Your task to perform on an android device: turn on bluetooth scan Image 0: 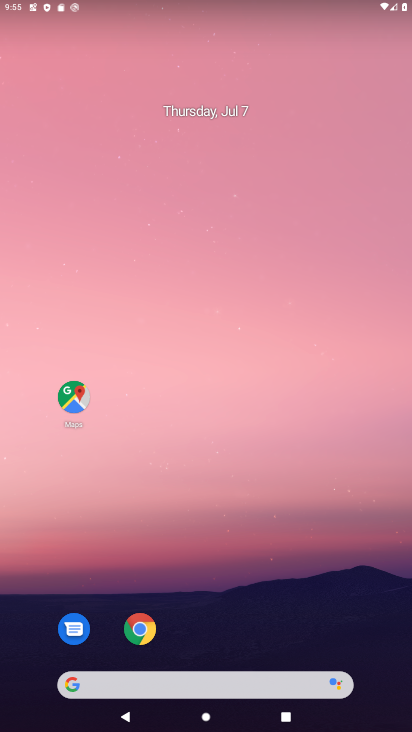
Step 0: drag from (208, 664) to (187, 94)
Your task to perform on an android device: turn on bluetooth scan Image 1: 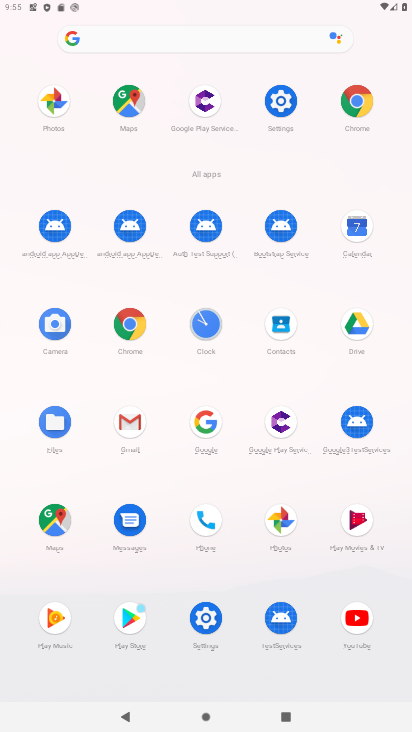
Step 1: click (276, 110)
Your task to perform on an android device: turn on bluetooth scan Image 2: 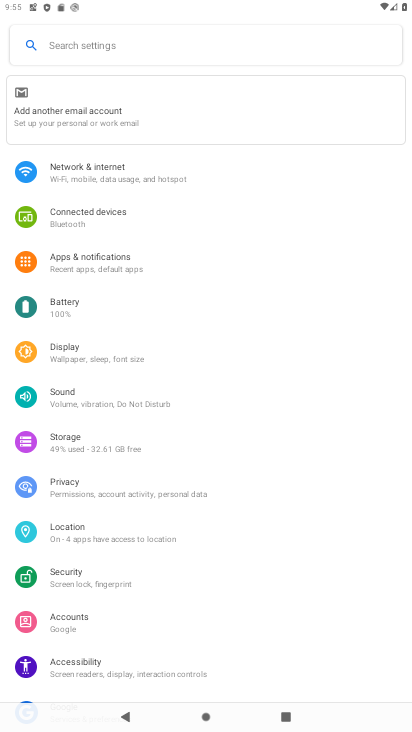
Step 2: click (86, 526)
Your task to perform on an android device: turn on bluetooth scan Image 3: 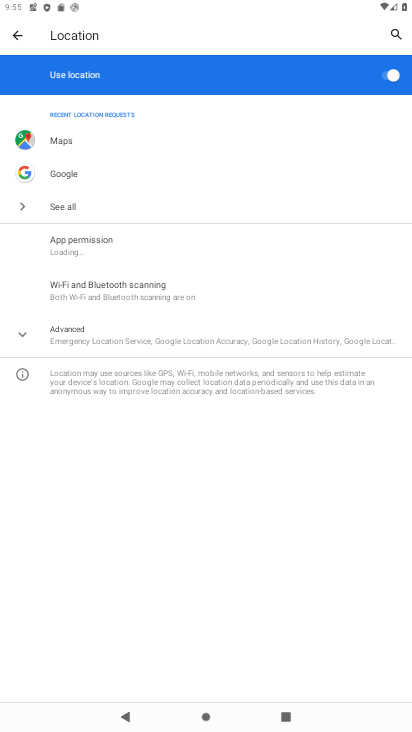
Step 3: click (97, 286)
Your task to perform on an android device: turn on bluetooth scan Image 4: 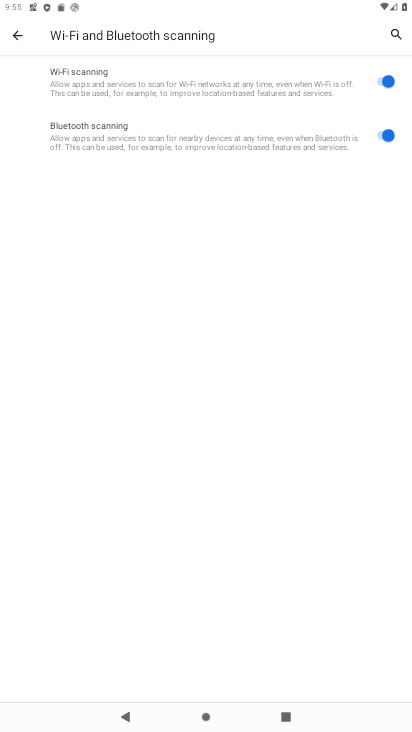
Step 4: task complete